Your task to perform on an android device: turn off wifi Image 0: 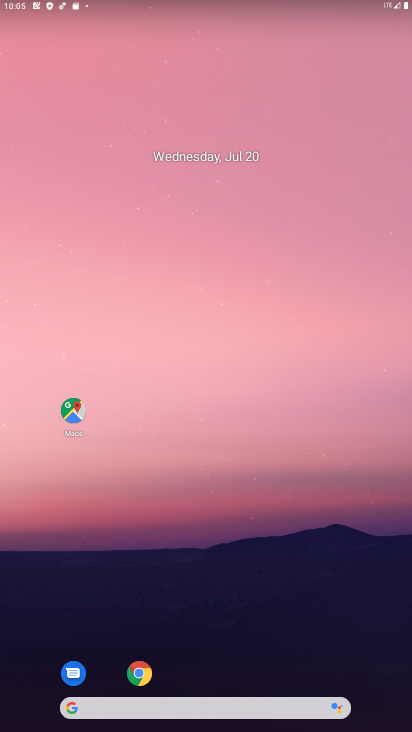
Step 0: drag from (205, 714) to (200, 206)
Your task to perform on an android device: turn off wifi Image 1: 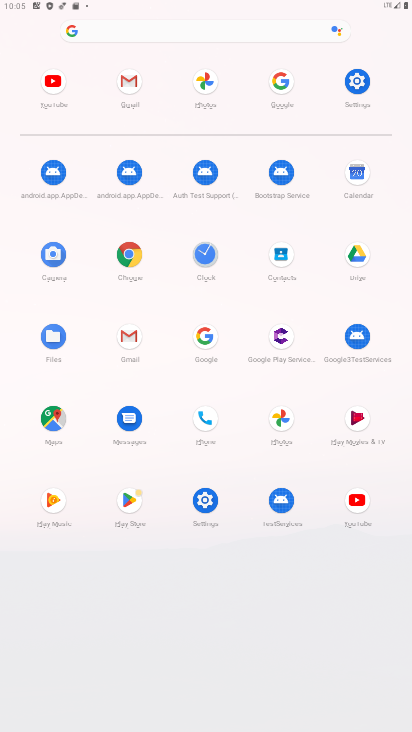
Step 1: click (357, 81)
Your task to perform on an android device: turn off wifi Image 2: 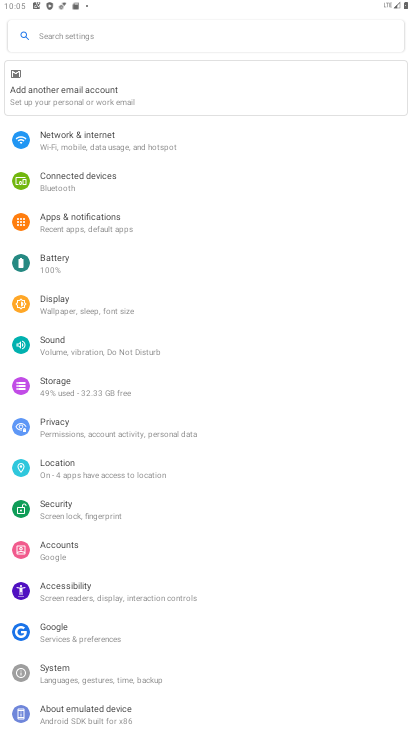
Step 2: click (117, 145)
Your task to perform on an android device: turn off wifi Image 3: 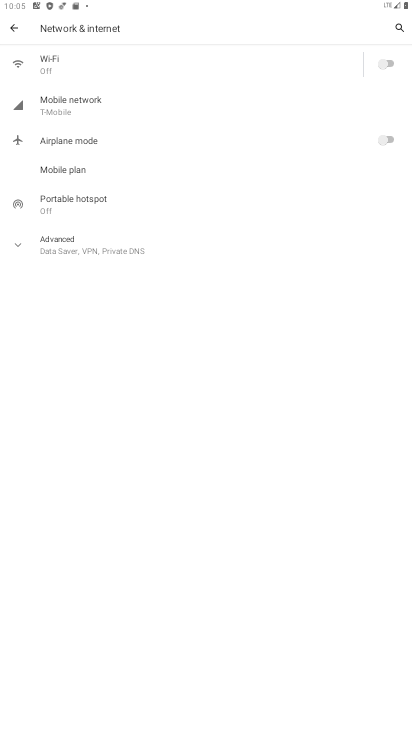
Step 3: task complete